Your task to perform on an android device: all mails in gmail Image 0: 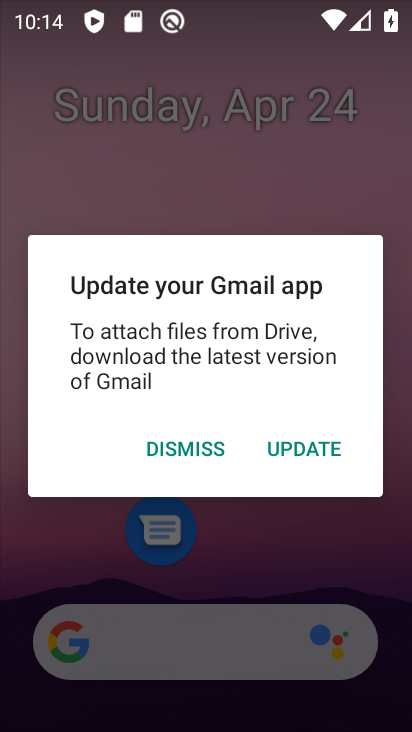
Step 0: press home button
Your task to perform on an android device: all mails in gmail Image 1: 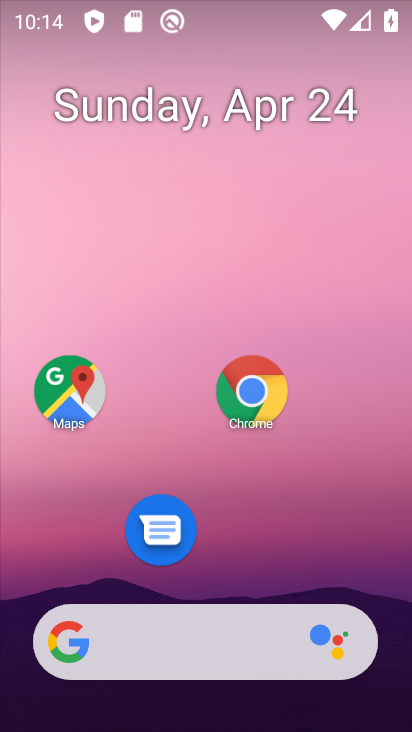
Step 1: drag from (199, 577) to (195, 0)
Your task to perform on an android device: all mails in gmail Image 2: 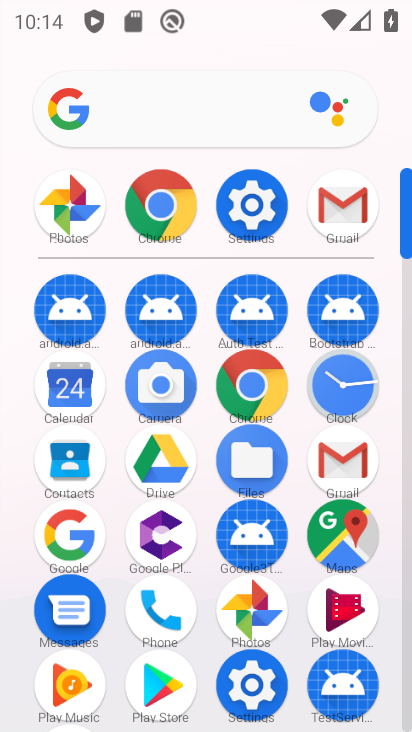
Step 2: click (347, 229)
Your task to perform on an android device: all mails in gmail Image 3: 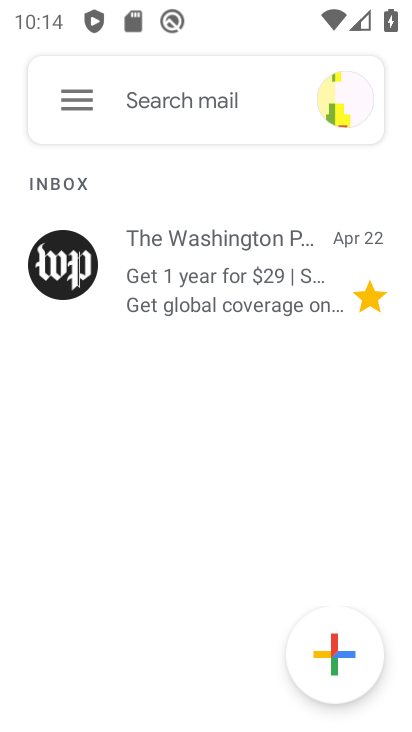
Step 3: click (87, 99)
Your task to perform on an android device: all mails in gmail Image 4: 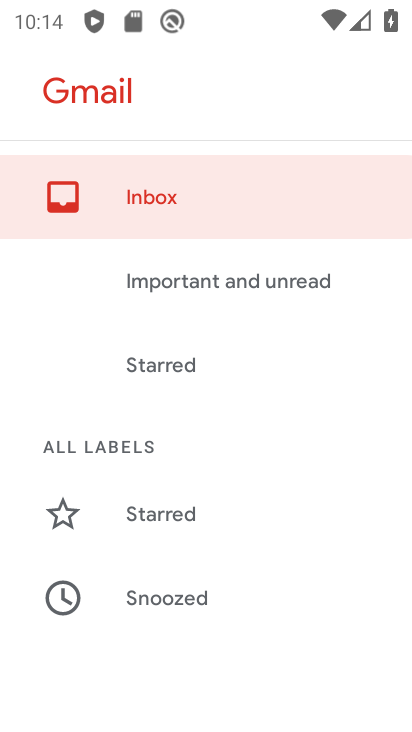
Step 4: drag from (190, 543) to (219, 103)
Your task to perform on an android device: all mails in gmail Image 5: 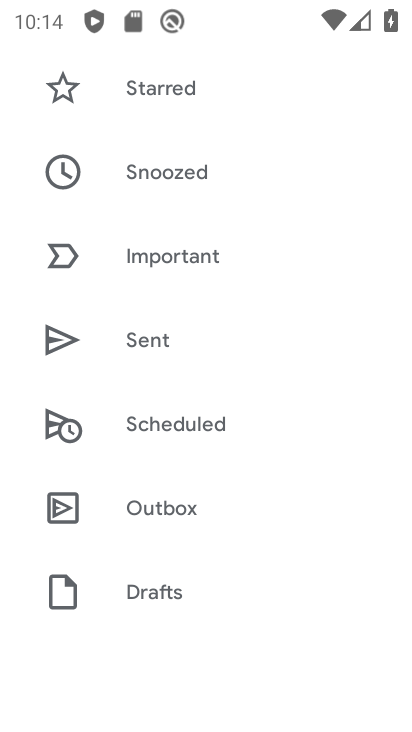
Step 5: drag from (116, 482) to (155, 176)
Your task to perform on an android device: all mails in gmail Image 6: 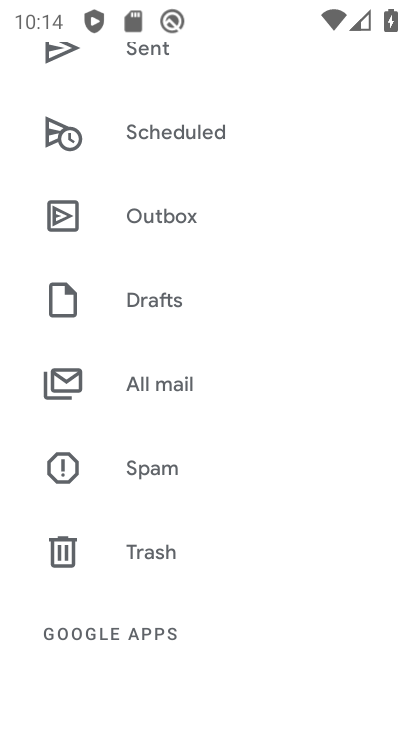
Step 6: click (151, 395)
Your task to perform on an android device: all mails in gmail Image 7: 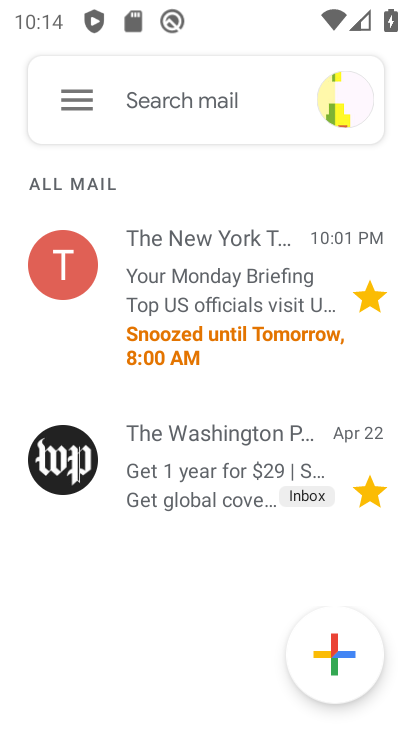
Step 7: task complete